Your task to perform on an android device: Open calendar and show me the second week of next month Image 0: 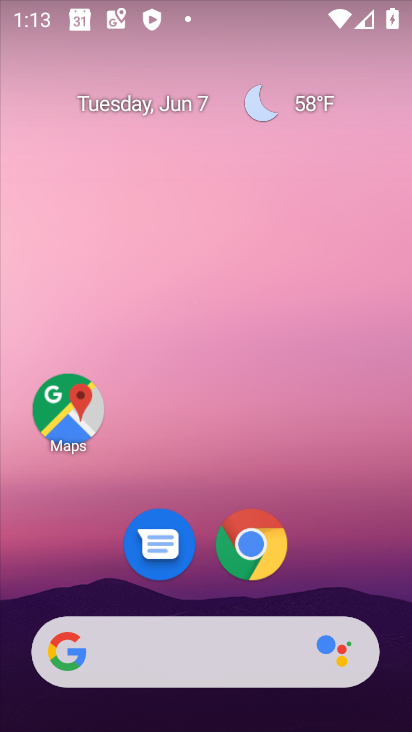
Step 0: drag from (186, 623) to (310, 19)
Your task to perform on an android device: Open calendar and show me the second week of next month Image 1: 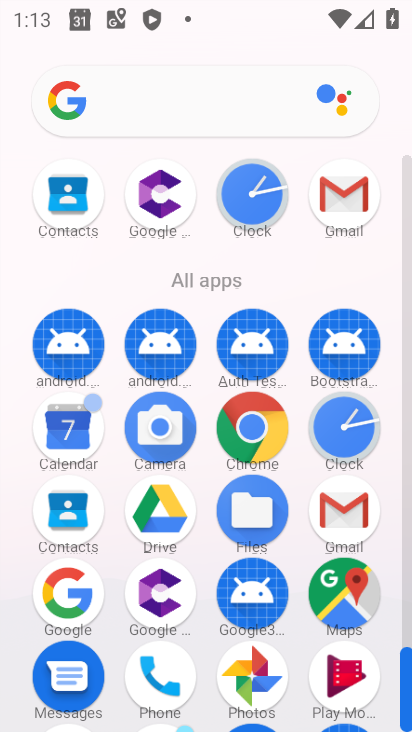
Step 1: click (45, 431)
Your task to perform on an android device: Open calendar and show me the second week of next month Image 2: 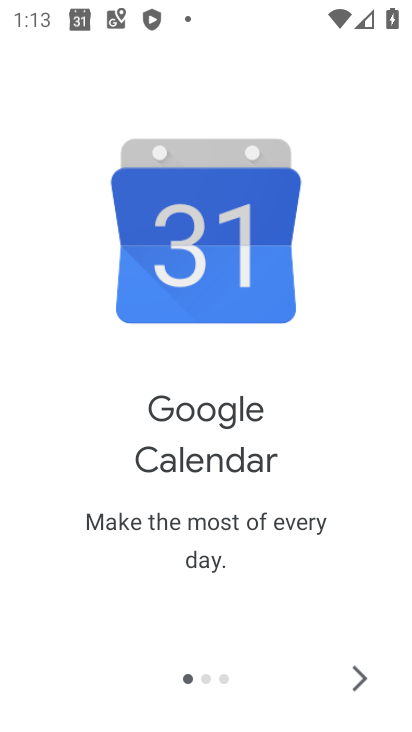
Step 2: click (373, 675)
Your task to perform on an android device: Open calendar and show me the second week of next month Image 3: 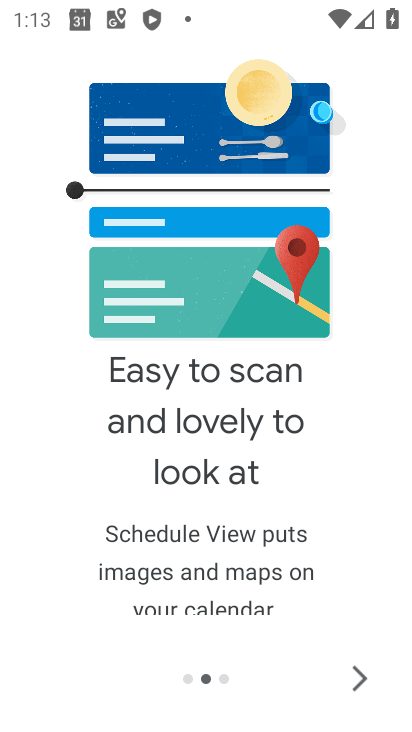
Step 3: click (373, 675)
Your task to perform on an android device: Open calendar and show me the second week of next month Image 4: 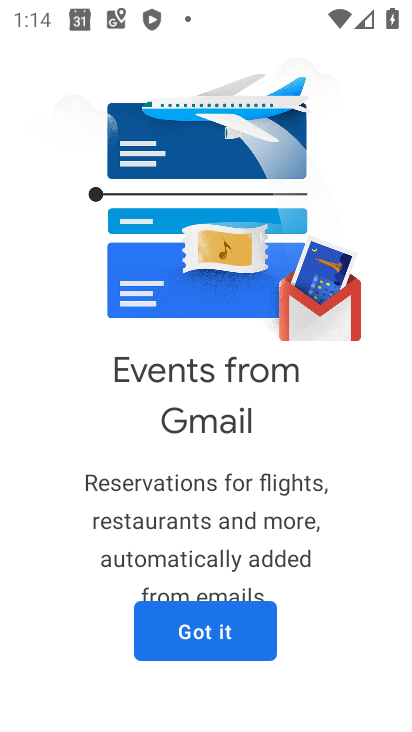
Step 4: click (176, 631)
Your task to perform on an android device: Open calendar and show me the second week of next month Image 5: 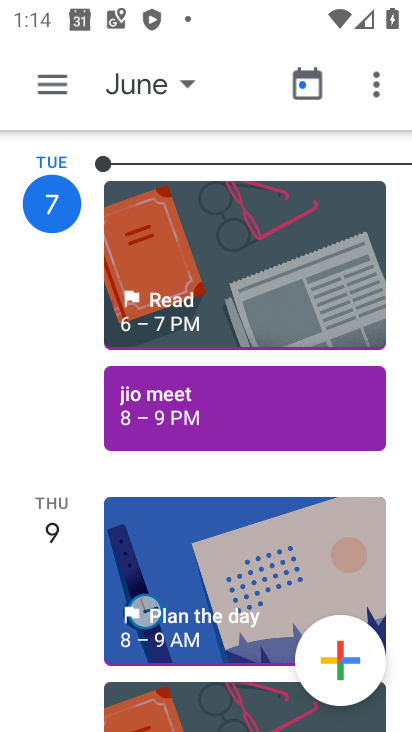
Step 5: click (50, 87)
Your task to perform on an android device: Open calendar and show me the second week of next month Image 6: 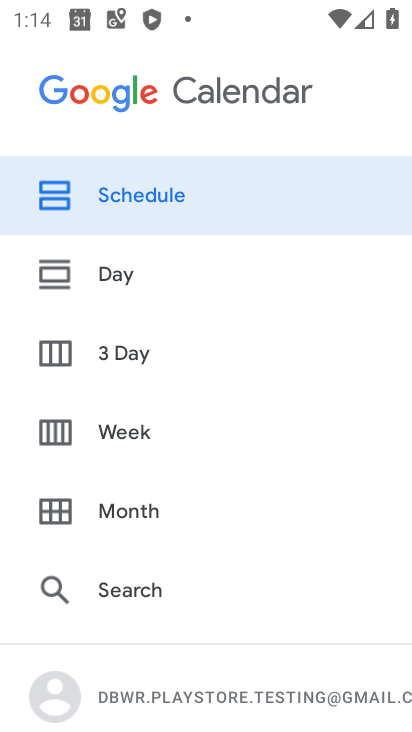
Step 6: click (134, 491)
Your task to perform on an android device: Open calendar and show me the second week of next month Image 7: 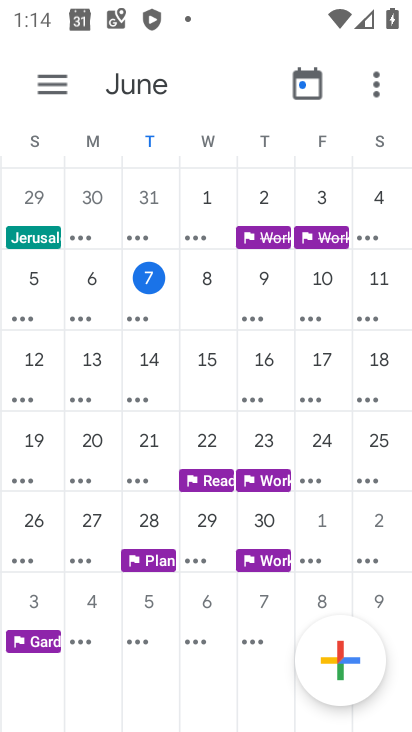
Step 7: task complete